Your task to perform on an android device: check the backup settings in the google photos Image 0: 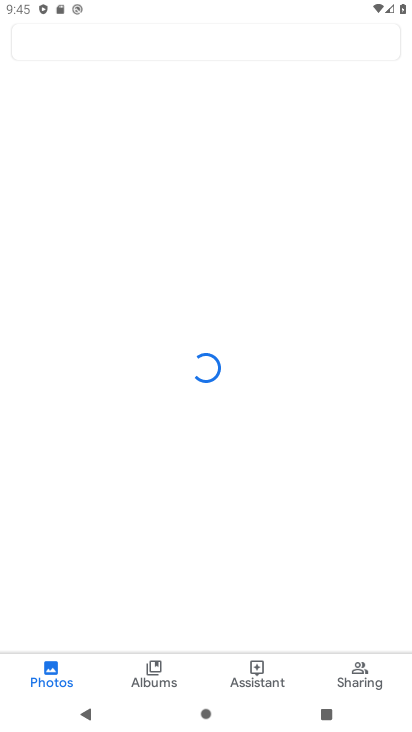
Step 0: press home button
Your task to perform on an android device: check the backup settings in the google photos Image 1: 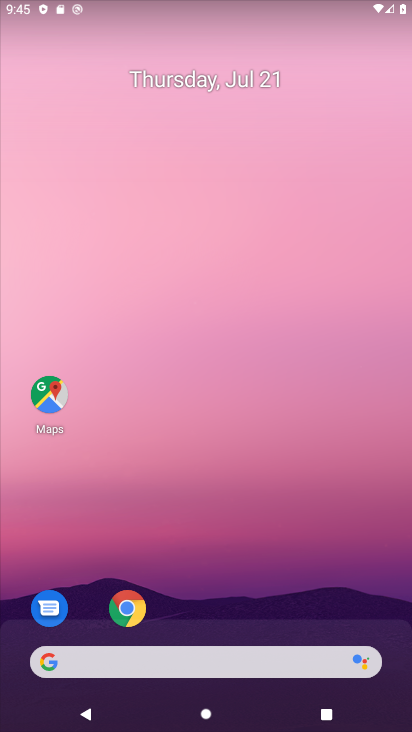
Step 1: drag from (203, 538) to (203, 268)
Your task to perform on an android device: check the backup settings in the google photos Image 2: 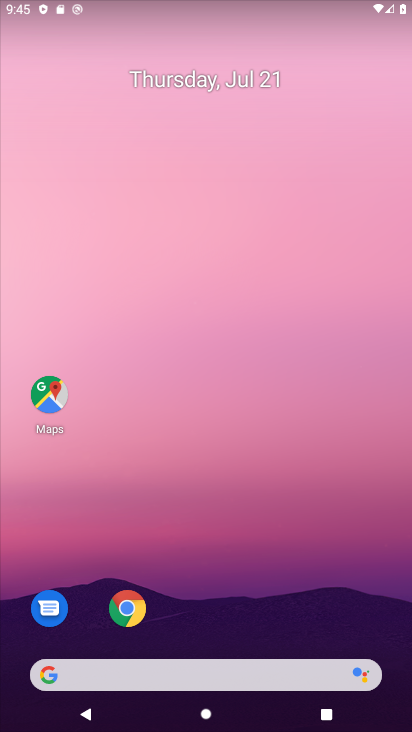
Step 2: drag from (223, 596) to (190, 239)
Your task to perform on an android device: check the backup settings in the google photos Image 3: 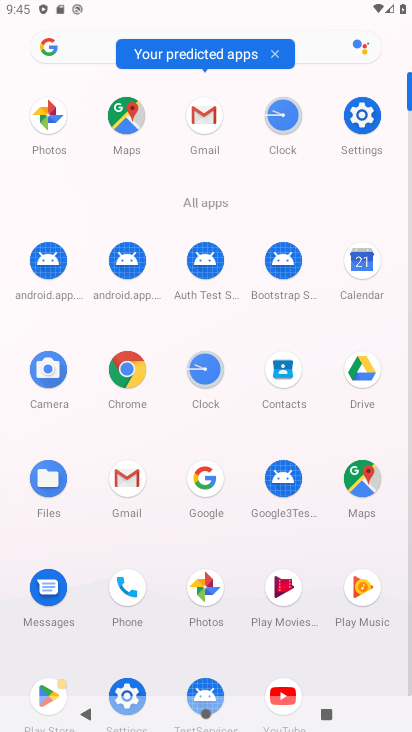
Step 3: click (213, 587)
Your task to perform on an android device: check the backup settings in the google photos Image 4: 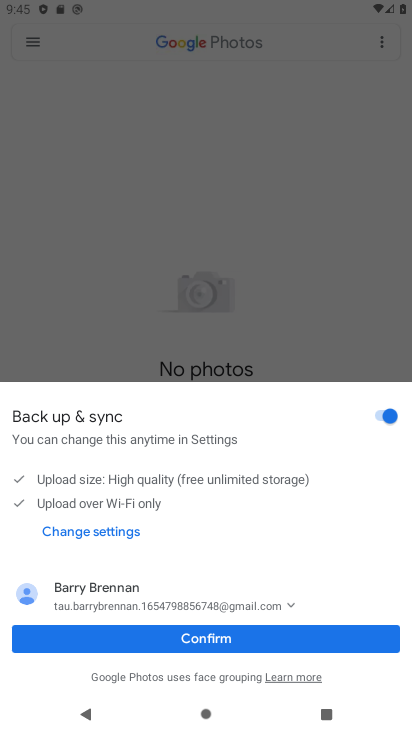
Step 4: click (231, 632)
Your task to perform on an android device: check the backup settings in the google photos Image 5: 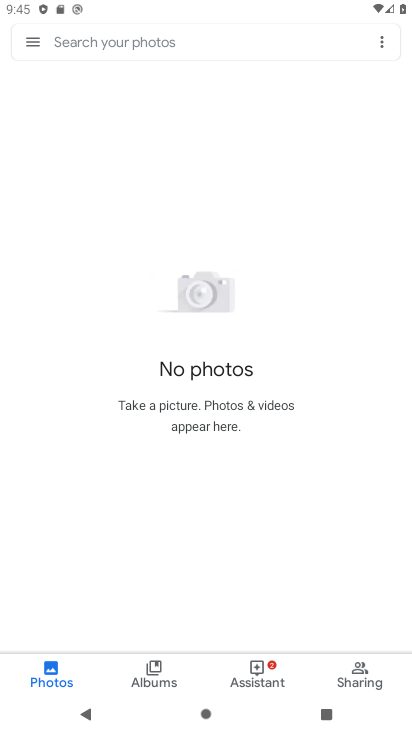
Step 5: click (33, 34)
Your task to perform on an android device: check the backup settings in the google photos Image 6: 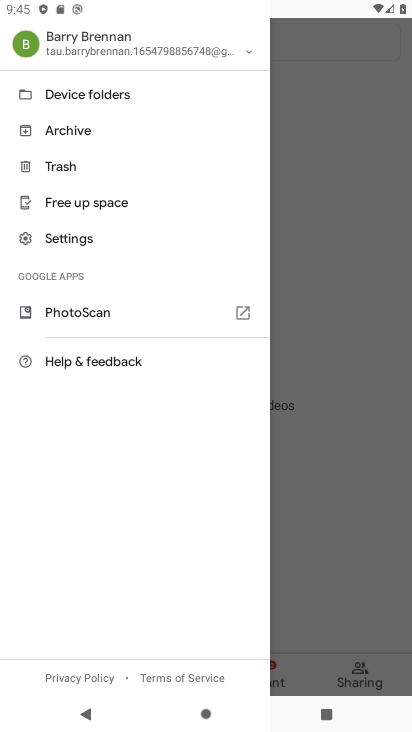
Step 6: click (80, 241)
Your task to perform on an android device: check the backup settings in the google photos Image 7: 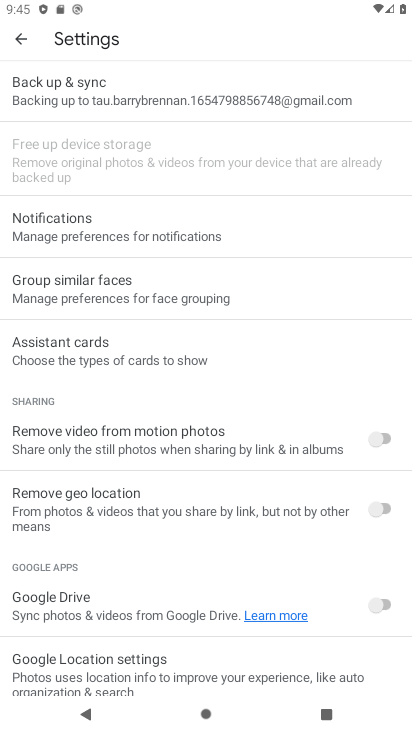
Step 7: click (135, 87)
Your task to perform on an android device: check the backup settings in the google photos Image 8: 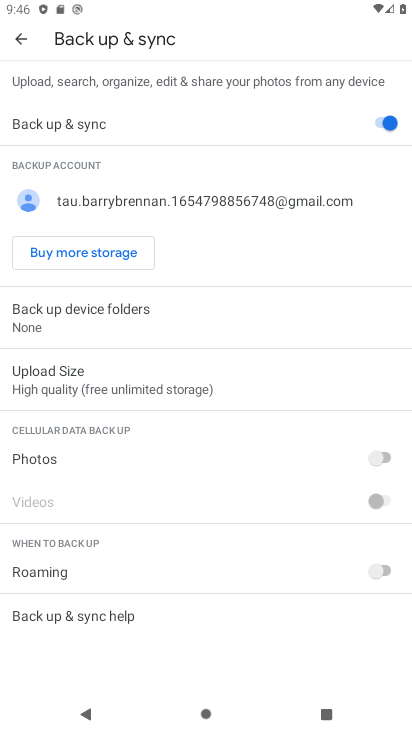
Step 8: task complete